Your task to perform on an android device: install app "Yahoo Mail" Image 0: 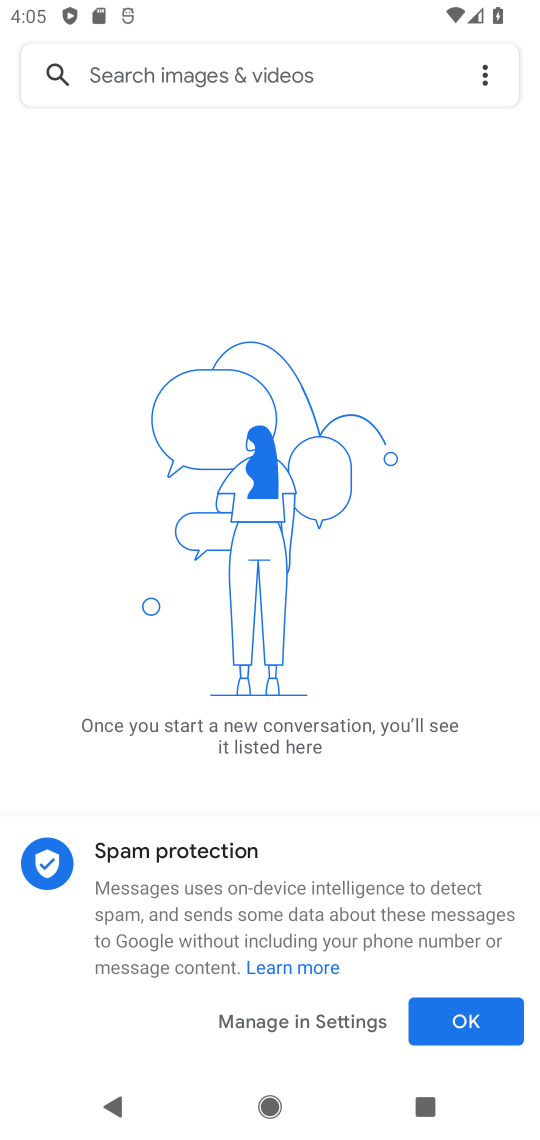
Step 0: press home button
Your task to perform on an android device: install app "Yahoo Mail" Image 1: 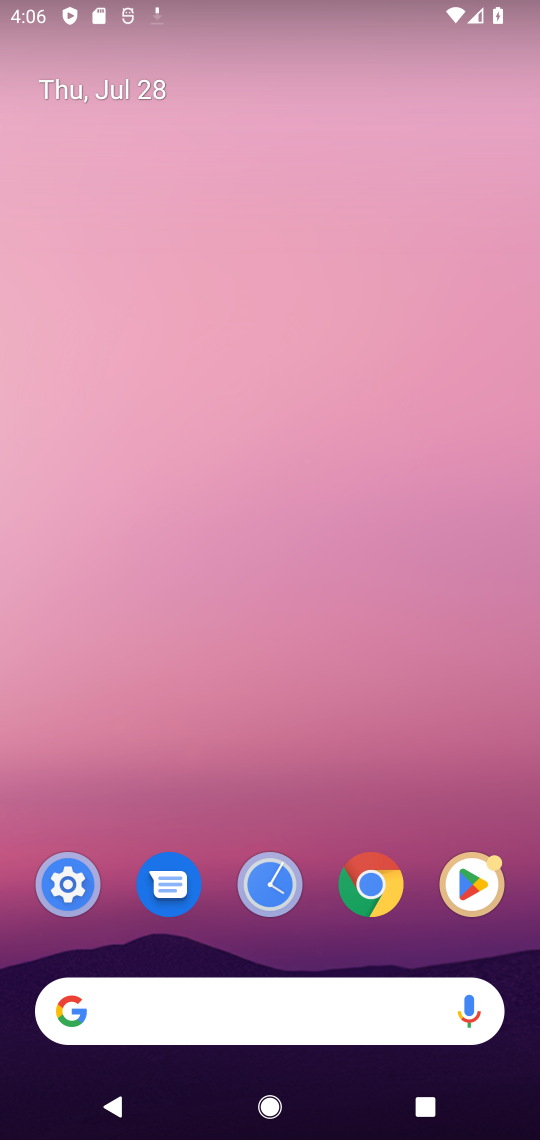
Step 1: drag from (234, 965) to (216, 32)
Your task to perform on an android device: install app "Yahoo Mail" Image 2: 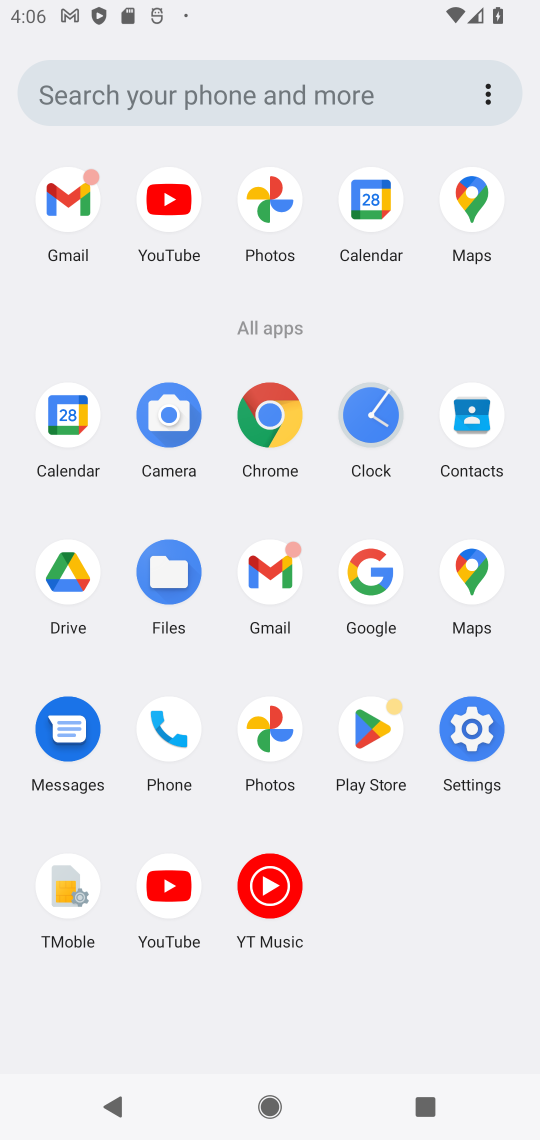
Step 2: click (349, 721)
Your task to perform on an android device: install app "Yahoo Mail" Image 3: 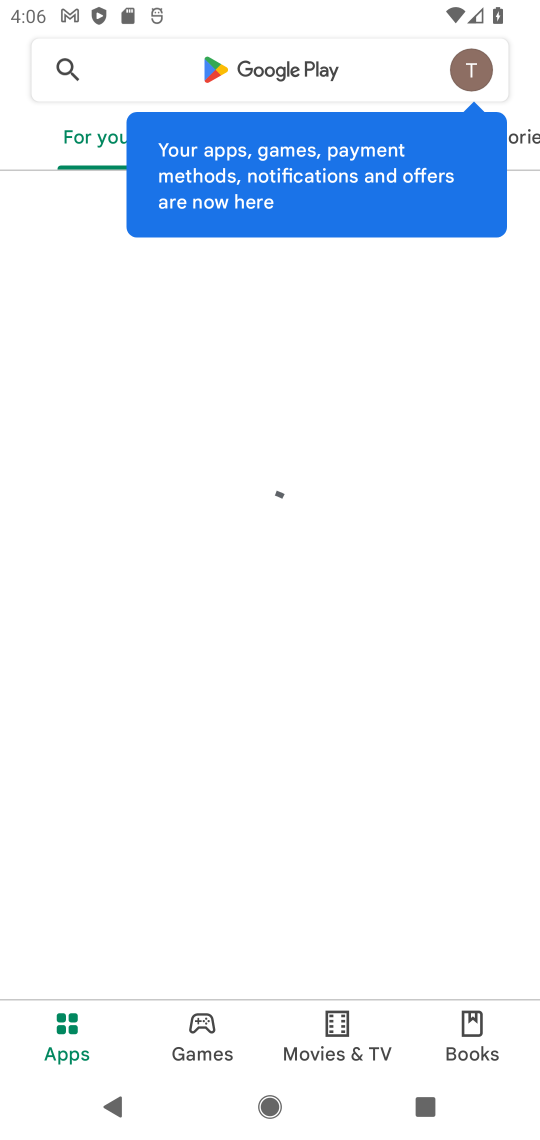
Step 3: click (254, 74)
Your task to perform on an android device: install app "Yahoo Mail" Image 4: 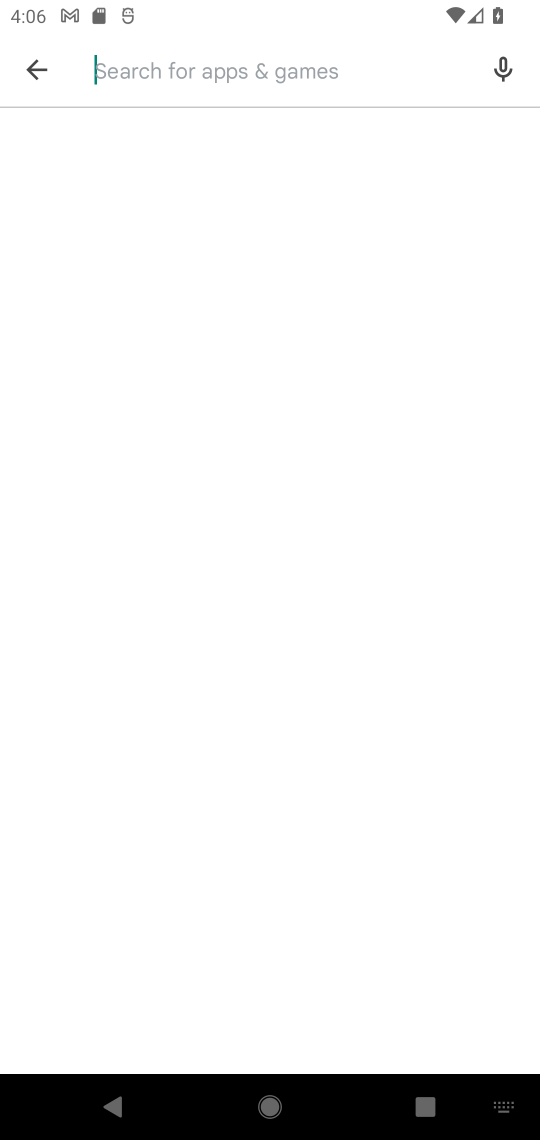
Step 4: type "yahoo mail"
Your task to perform on an android device: install app "Yahoo Mail" Image 5: 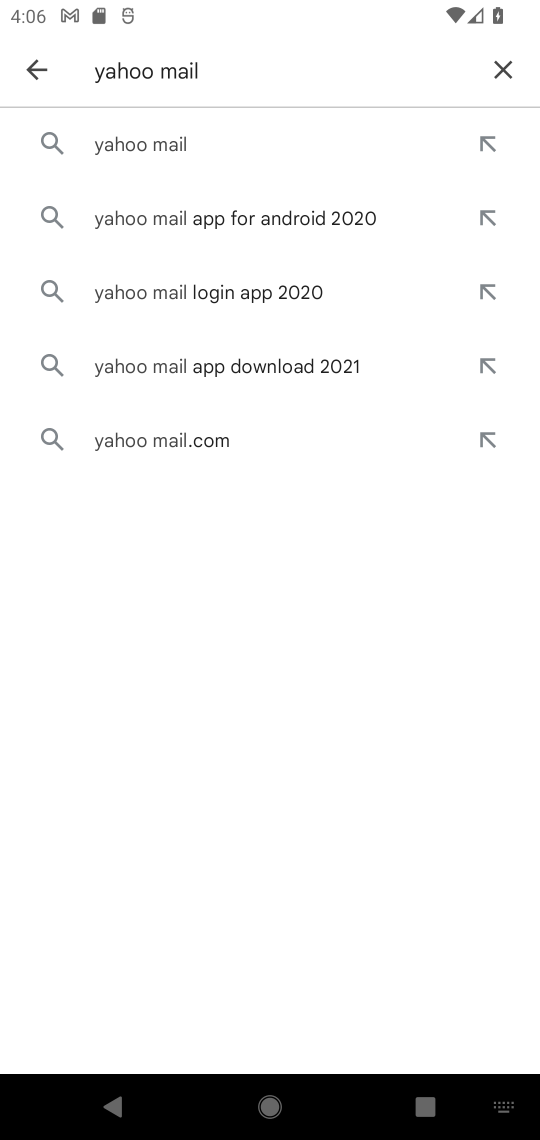
Step 5: click (253, 134)
Your task to perform on an android device: install app "Yahoo Mail" Image 6: 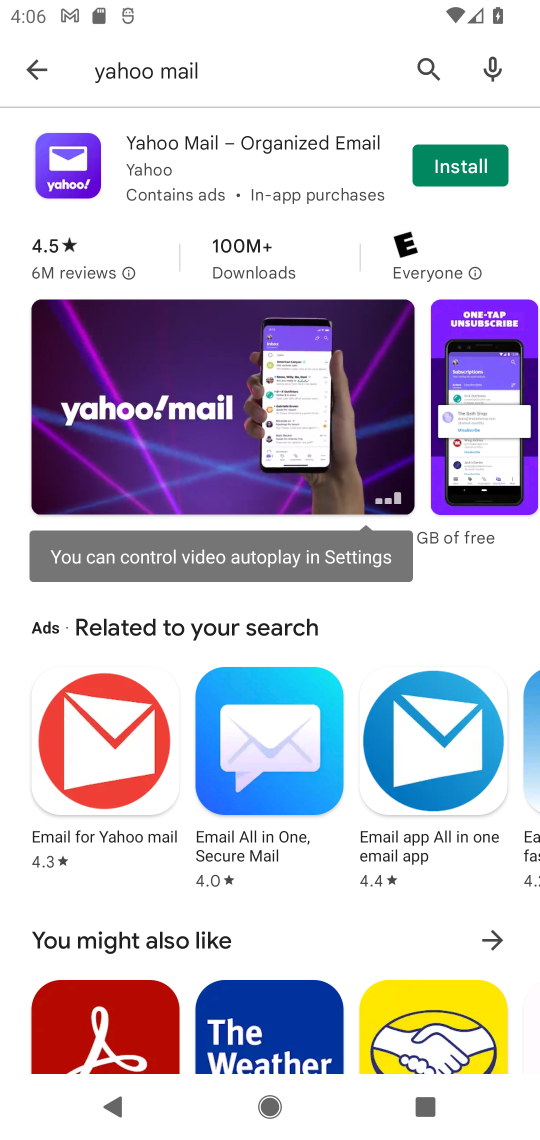
Step 6: click (443, 159)
Your task to perform on an android device: install app "Yahoo Mail" Image 7: 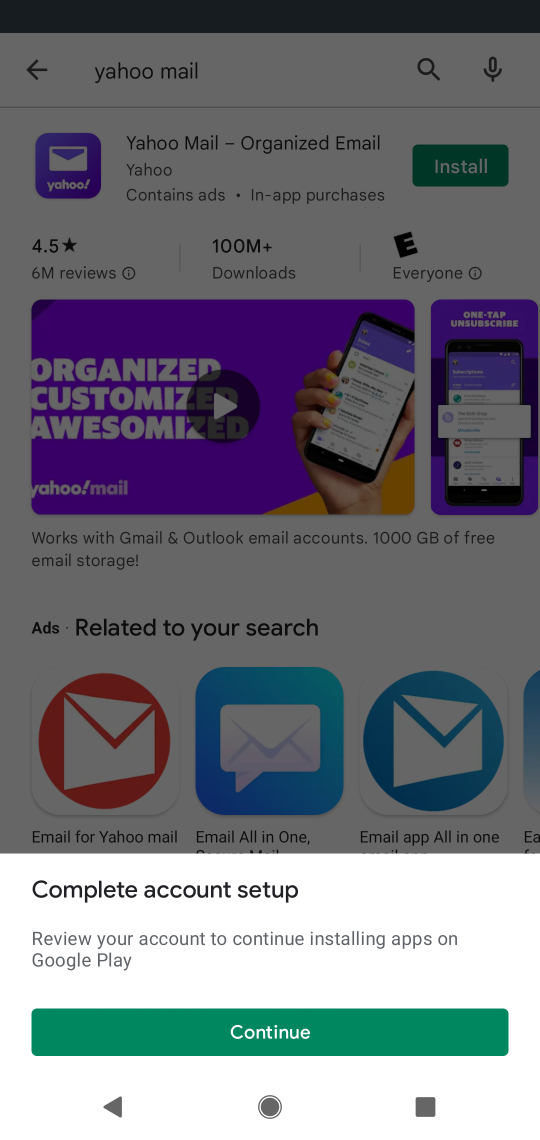
Step 7: click (289, 1023)
Your task to perform on an android device: install app "Yahoo Mail" Image 8: 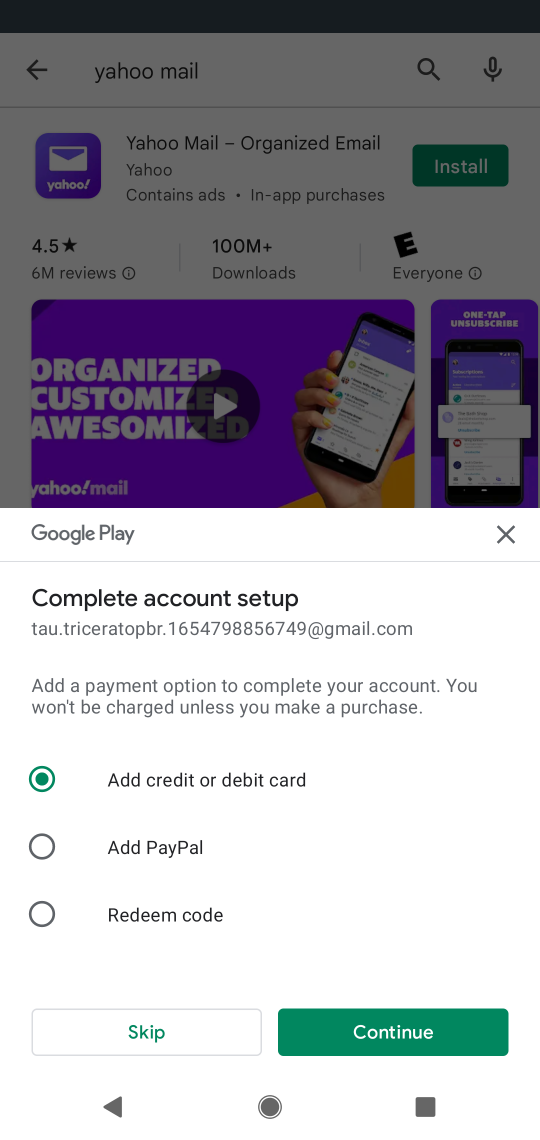
Step 8: click (135, 1024)
Your task to perform on an android device: install app "Yahoo Mail" Image 9: 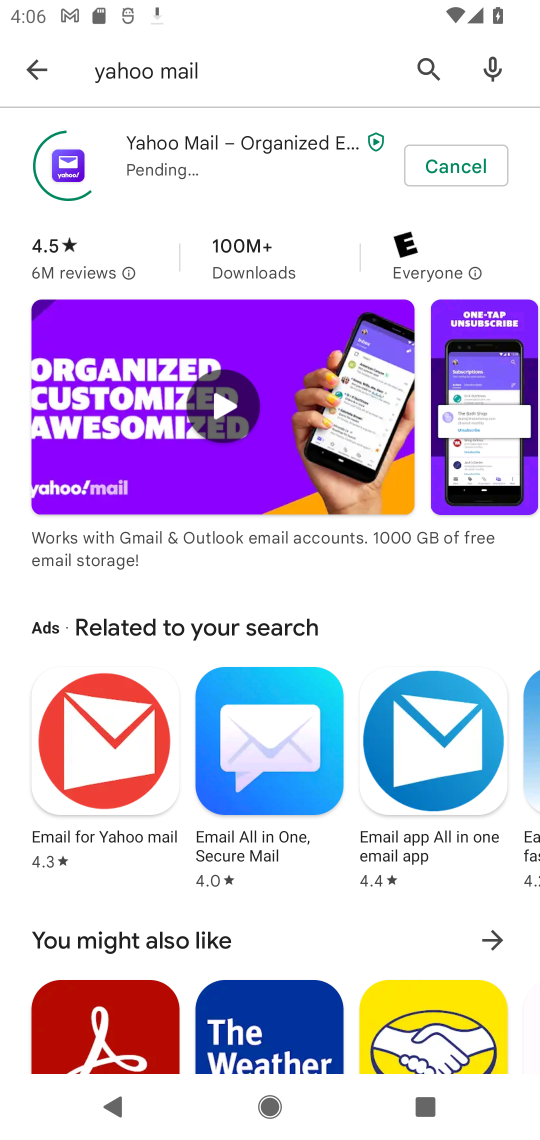
Step 9: click (448, 178)
Your task to perform on an android device: install app "Yahoo Mail" Image 10: 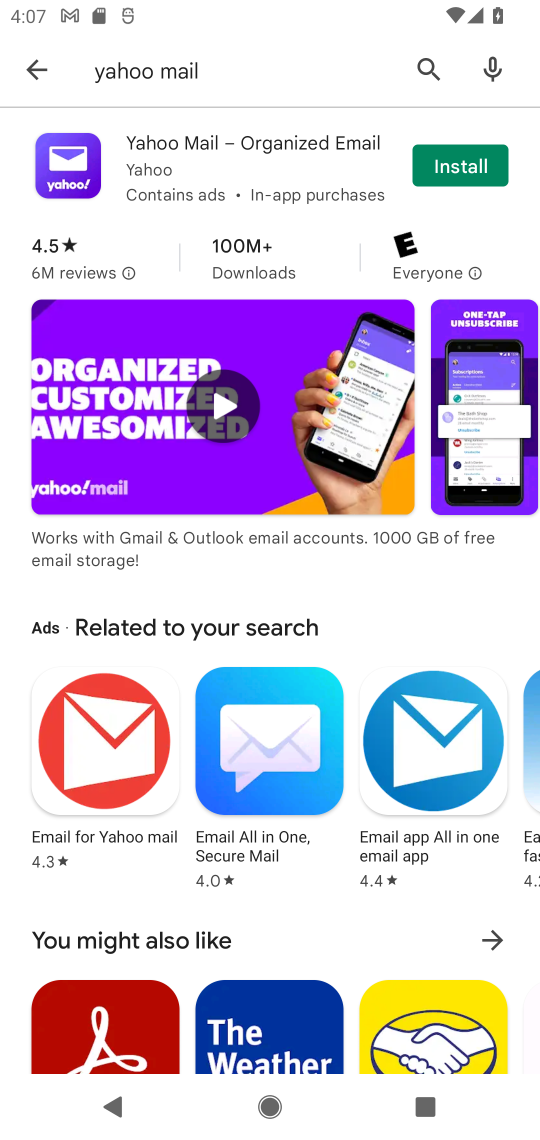
Step 10: click (442, 168)
Your task to perform on an android device: install app "Yahoo Mail" Image 11: 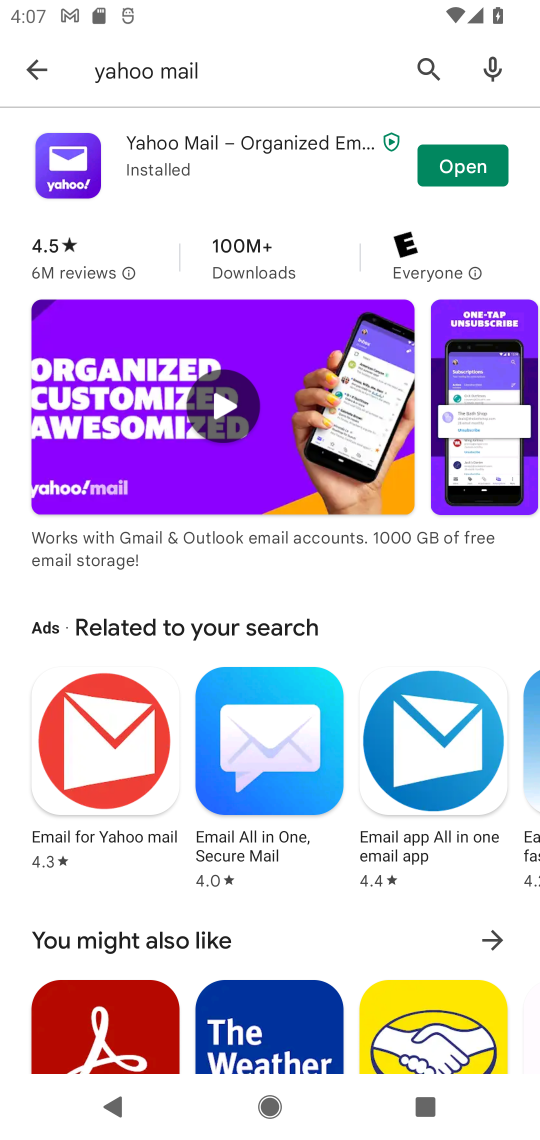
Step 11: task complete